Your task to perform on an android device: Search for "jbl flip 4" on target.com, select the first entry, and add it to the cart. Image 0: 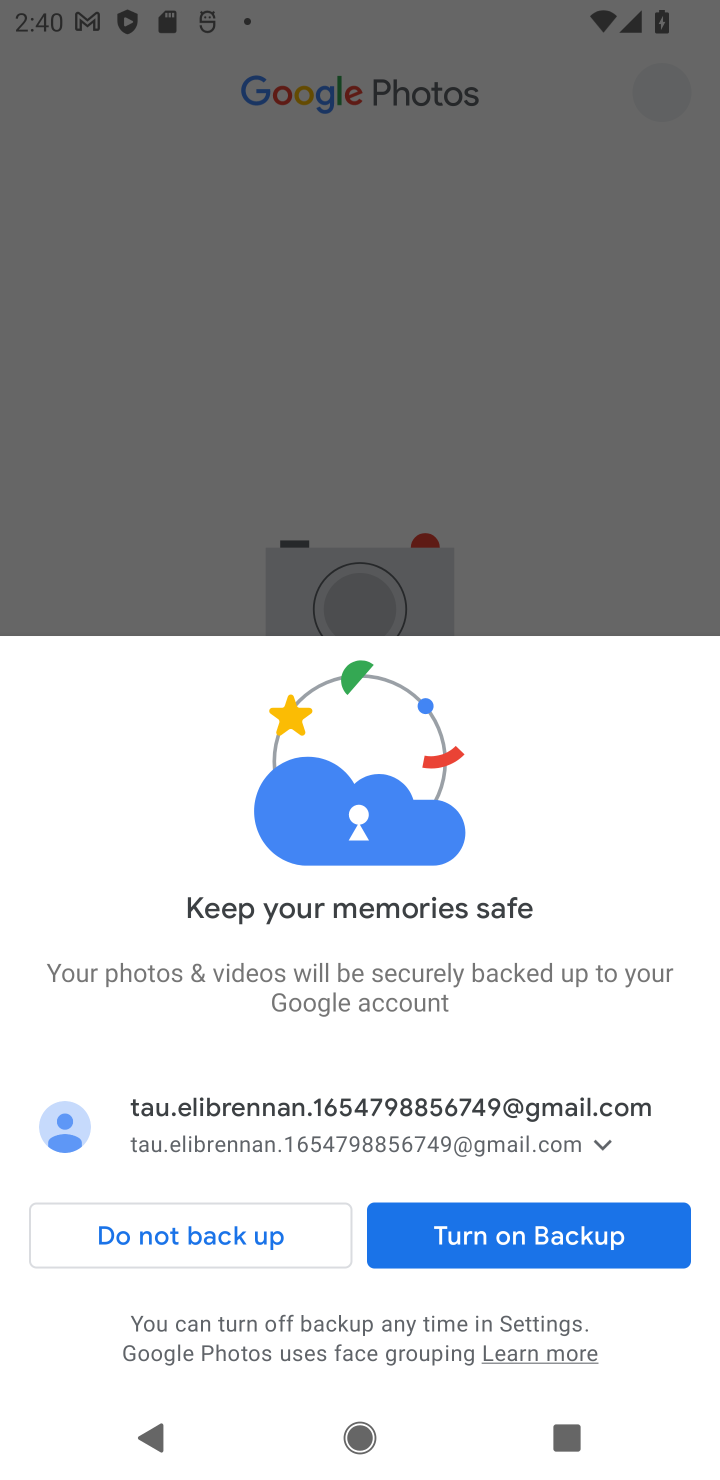
Step 0: press home button
Your task to perform on an android device: Search for "jbl flip 4" on target.com, select the first entry, and add it to the cart. Image 1: 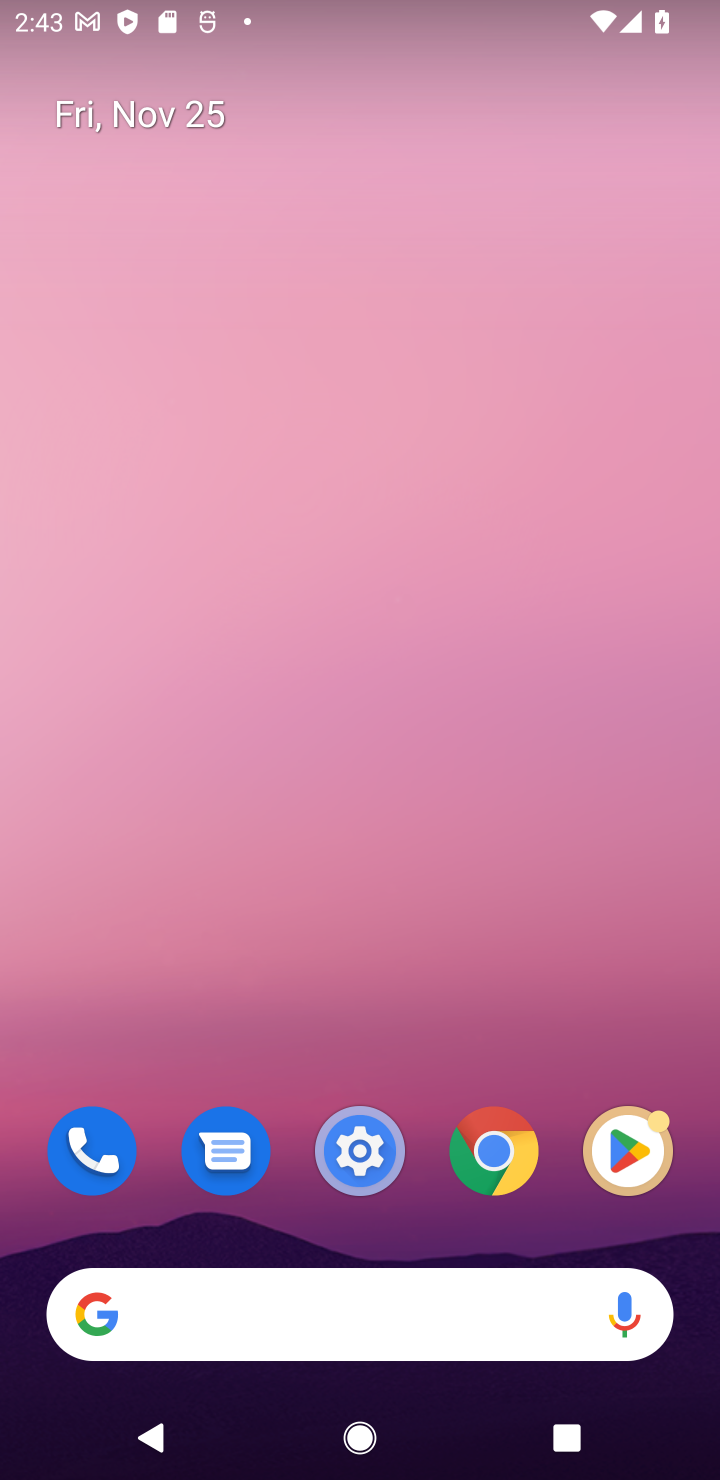
Step 1: click (394, 1306)
Your task to perform on an android device: Search for "jbl flip 4" on target.com, select the first entry, and add it to the cart. Image 2: 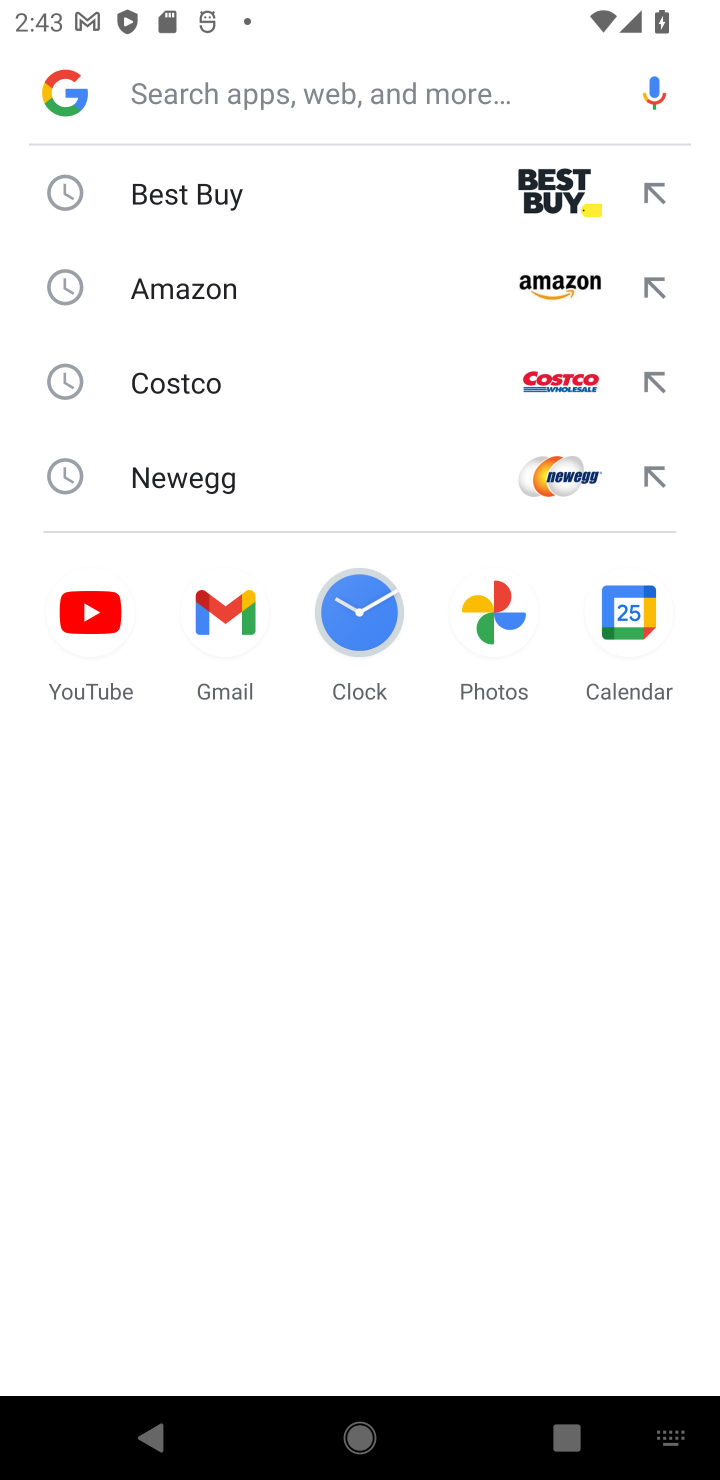
Step 2: type "target"
Your task to perform on an android device: Search for "jbl flip 4" on target.com, select the first entry, and add it to the cart. Image 3: 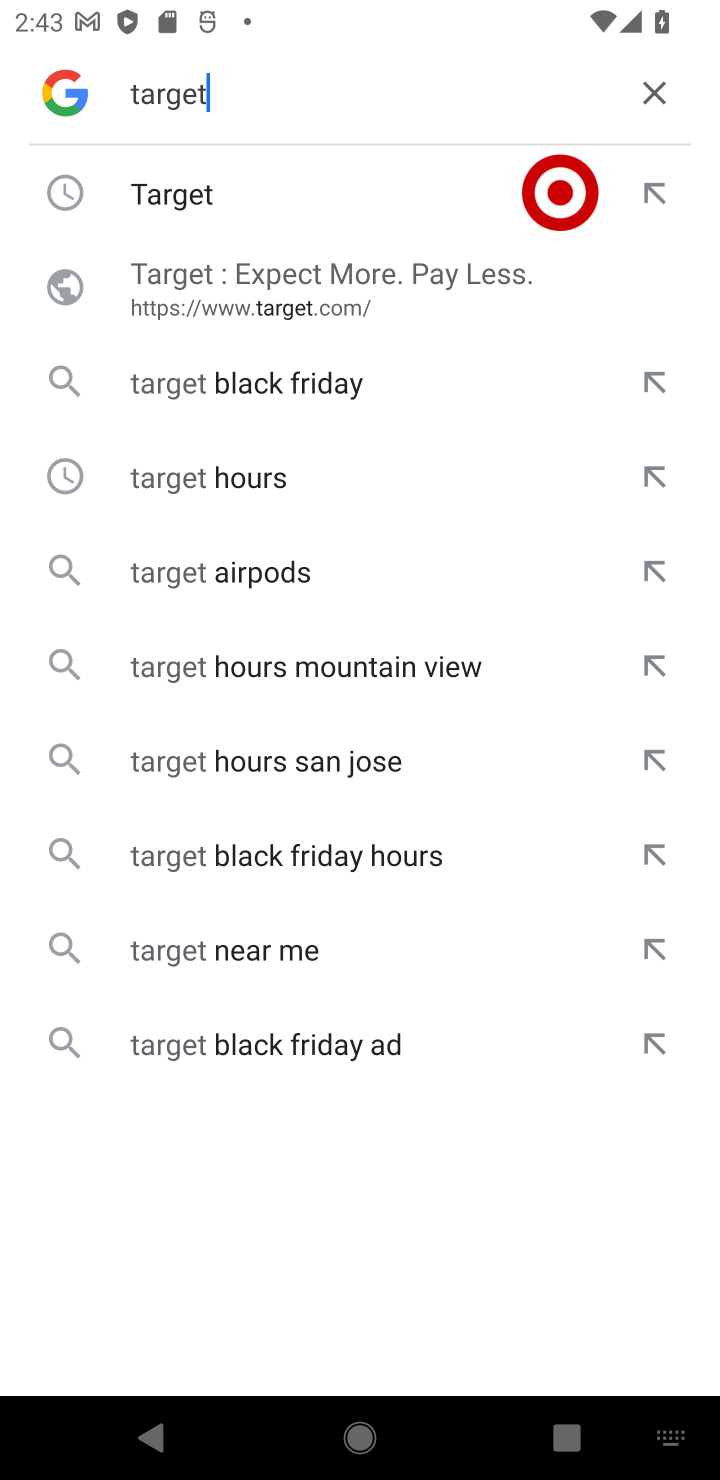
Step 3: click (318, 193)
Your task to perform on an android device: Search for "jbl flip 4" on target.com, select the first entry, and add it to the cart. Image 4: 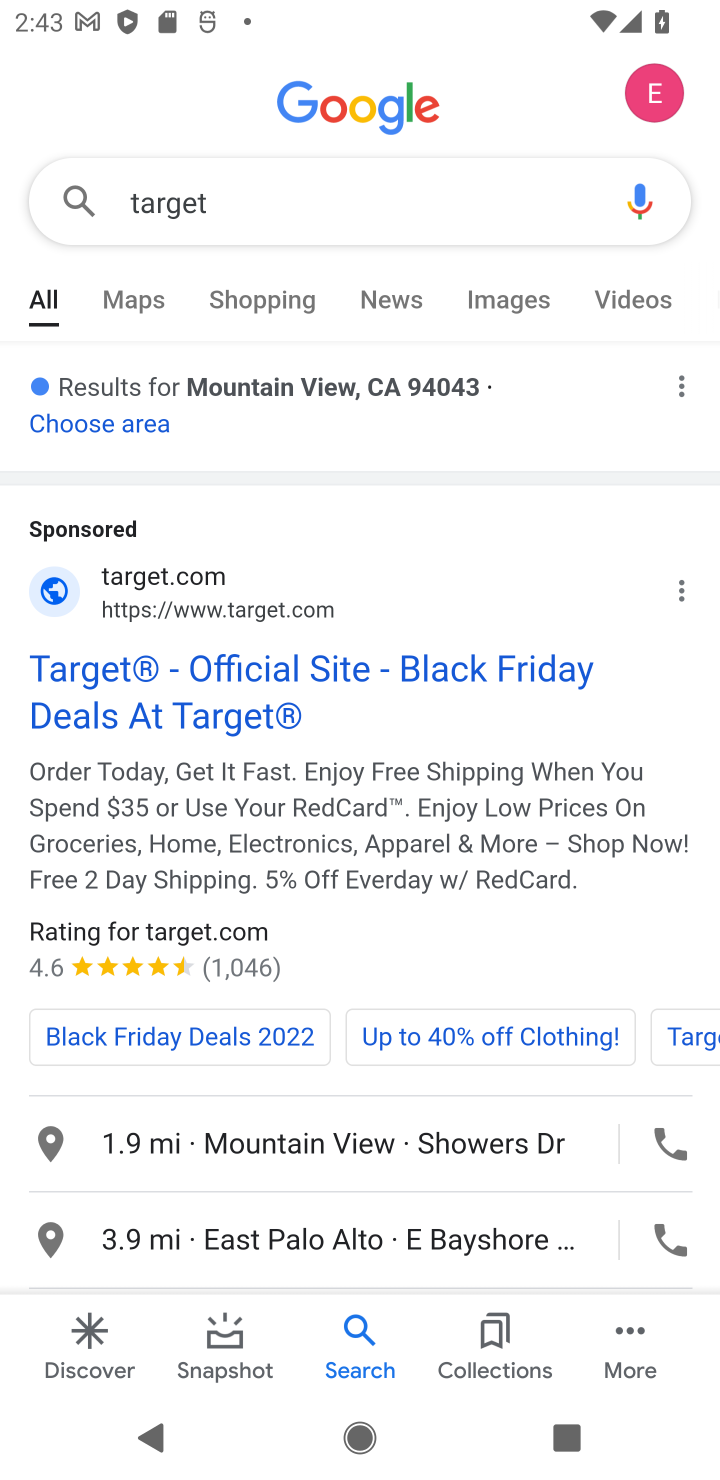
Step 4: click (210, 755)
Your task to perform on an android device: Search for "jbl flip 4" on target.com, select the first entry, and add it to the cart. Image 5: 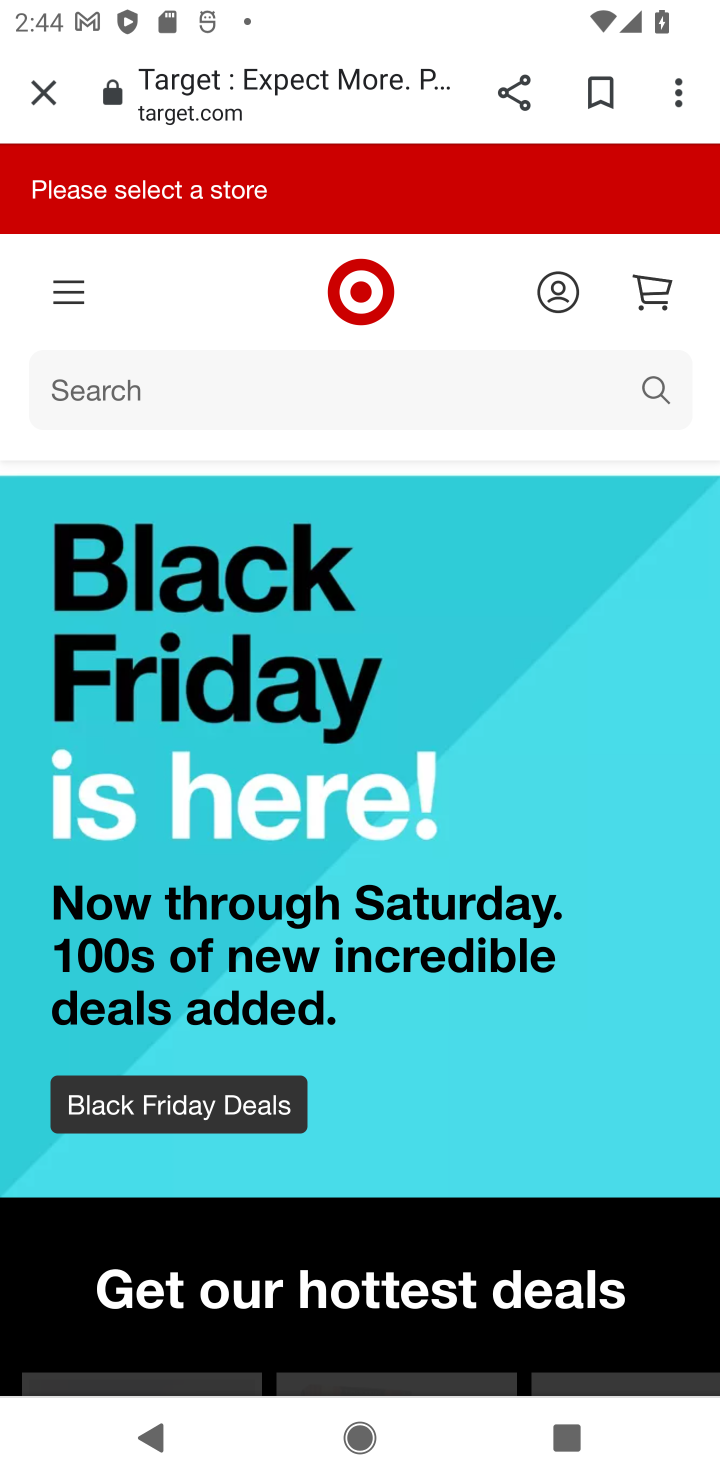
Step 5: task complete